Your task to perform on an android device: turn off sleep mode Image 0: 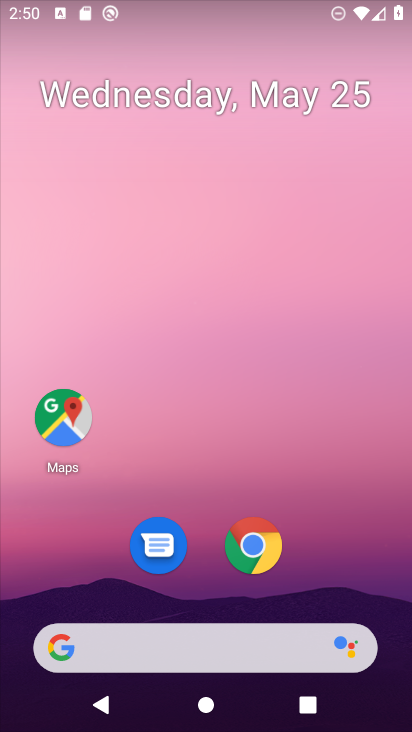
Step 0: drag from (370, 575) to (301, 15)
Your task to perform on an android device: turn off sleep mode Image 1: 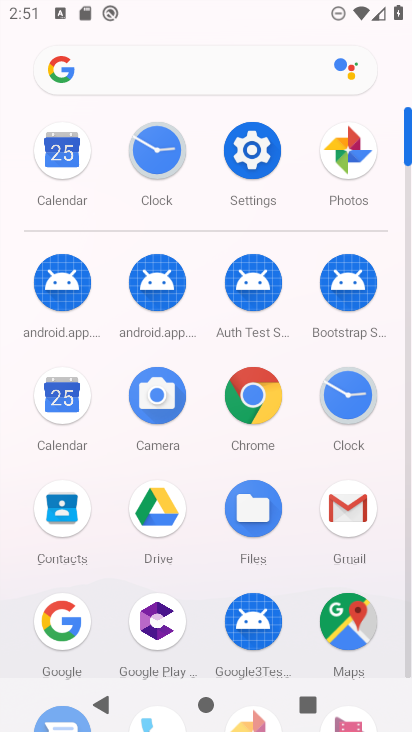
Step 1: click (254, 137)
Your task to perform on an android device: turn off sleep mode Image 2: 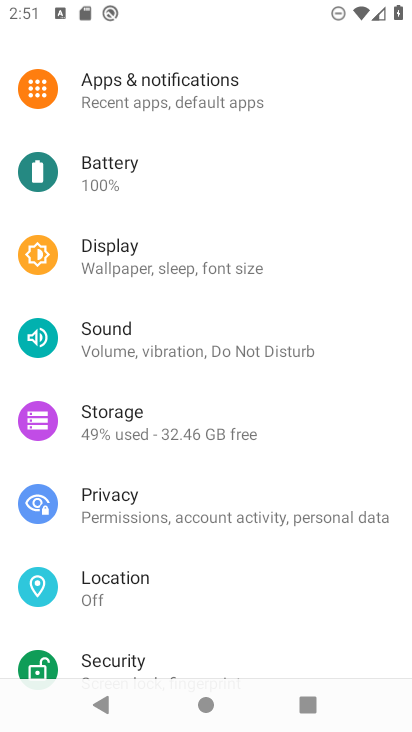
Step 2: click (225, 287)
Your task to perform on an android device: turn off sleep mode Image 3: 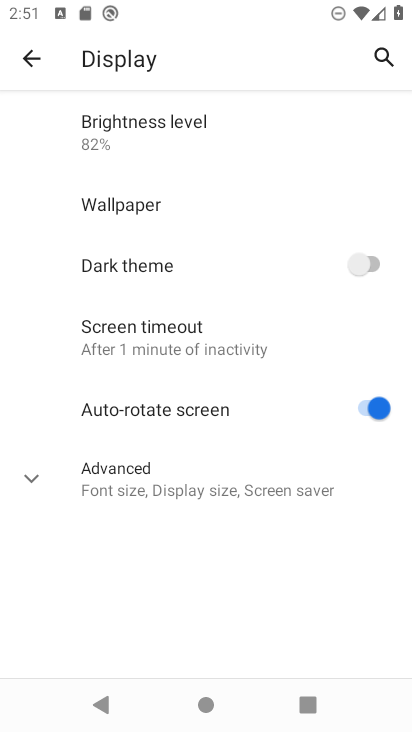
Step 3: click (230, 353)
Your task to perform on an android device: turn off sleep mode Image 4: 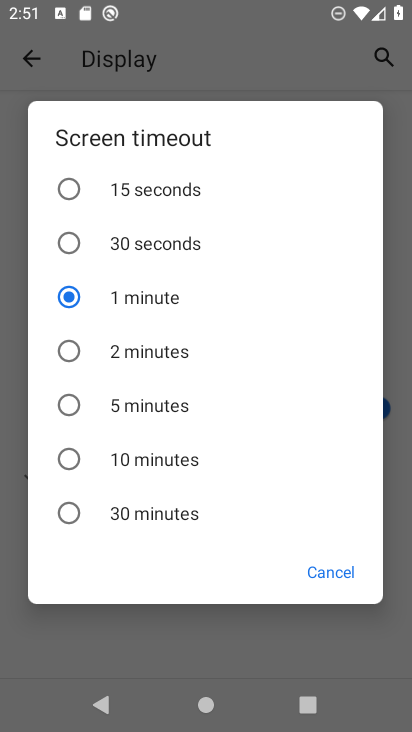
Step 4: click (185, 199)
Your task to perform on an android device: turn off sleep mode Image 5: 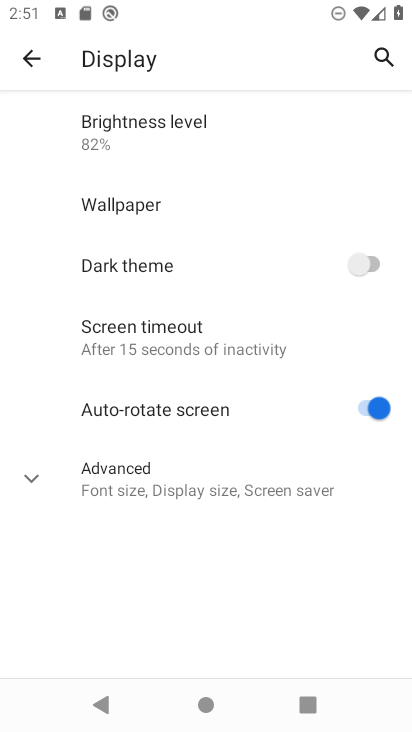
Step 5: task complete